Your task to perform on an android device: Open battery settings Image 0: 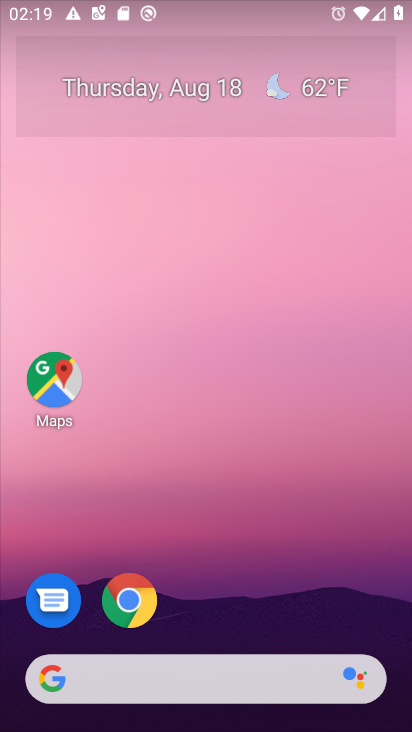
Step 0: press home button
Your task to perform on an android device: Open battery settings Image 1: 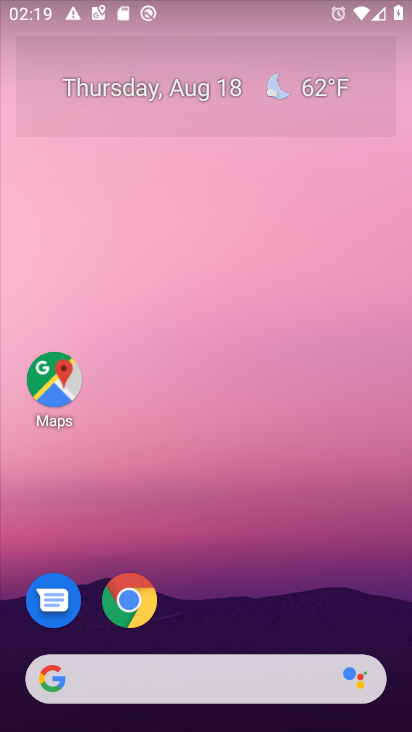
Step 1: drag from (256, 596) to (272, 59)
Your task to perform on an android device: Open battery settings Image 2: 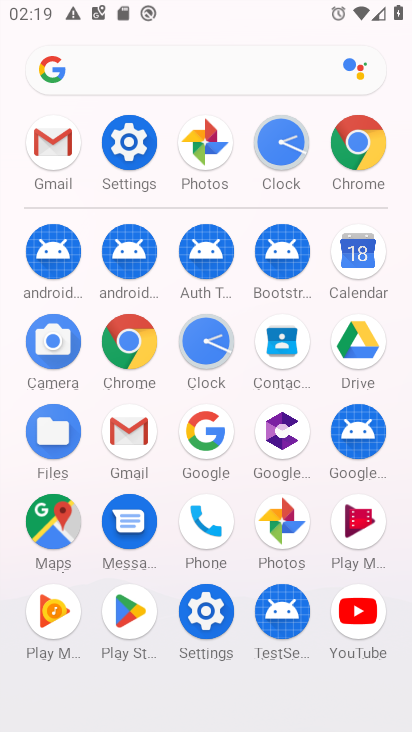
Step 2: click (132, 141)
Your task to perform on an android device: Open battery settings Image 3: 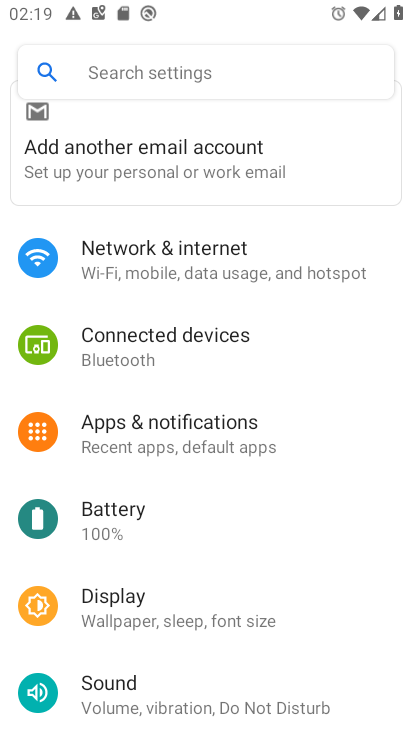
Step 3: click (136, 519)
Your task to perform on an android device: Open battery settings Image 4: 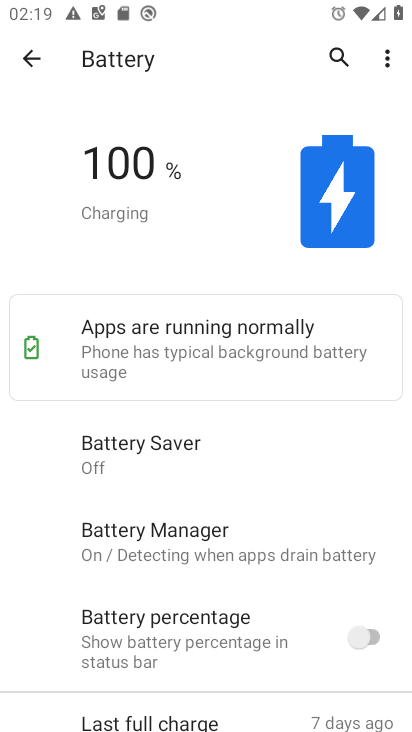
Step 4: task complete